Your task to perform on an android device: Go to battery settings Image 0: 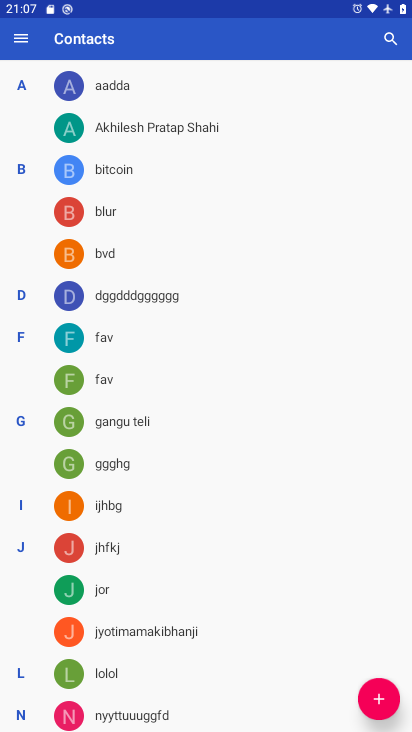
Step 0: press home button
Your task to perform on an android device: Go to battery settings Image 1: 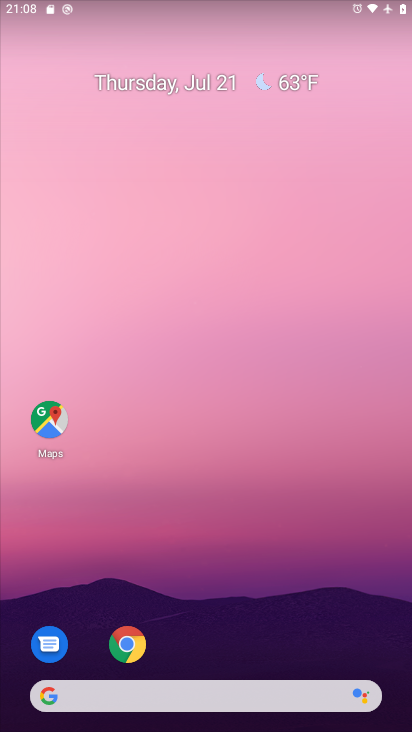
Step 1: drag from (215, 635) to (247, 65)
Your task to perform on an android device: Go to battery settings Image 2: 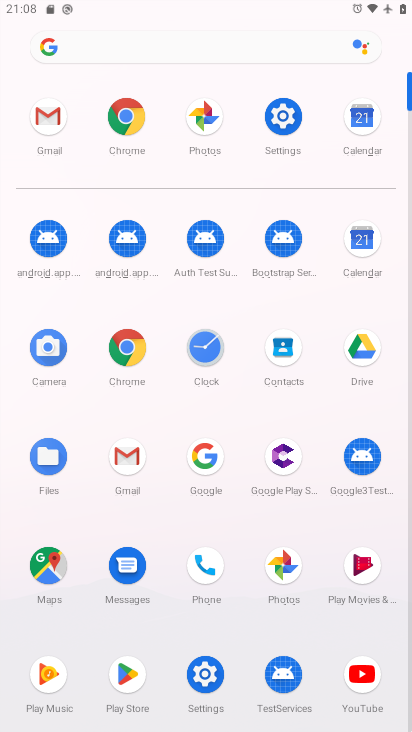
Step 2: click (281, 122)
Your task to perform on an android device: Go to battery settings Image 3: 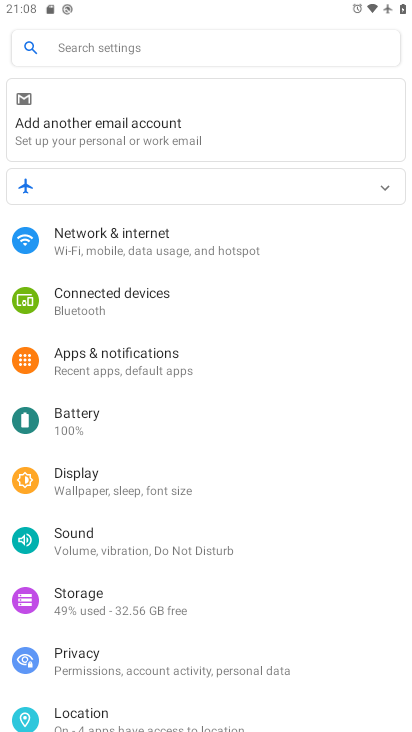
Step 3: click (102, 419)
Your task to perform on an android device: Go to battery settings Image 4: 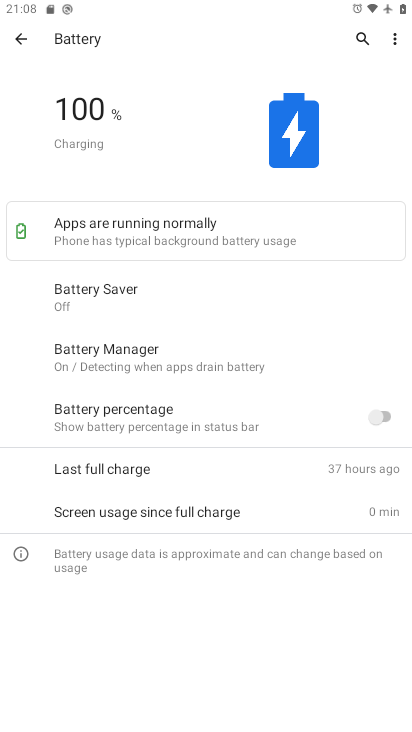
Step 4: task complete